Your task to perform on an android device: What's the weather today? Image 0: 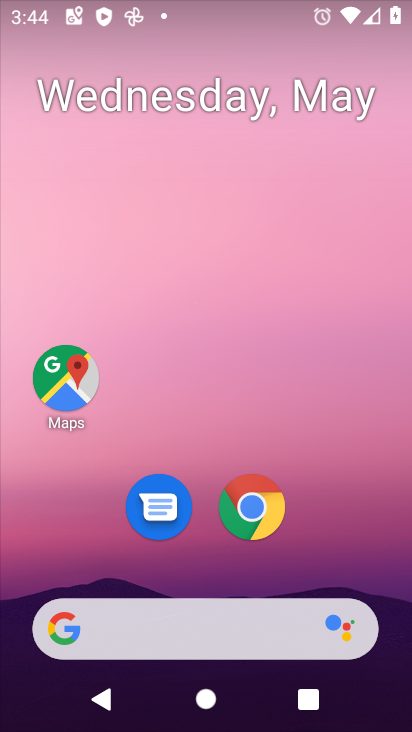
Step 0: click (190, 620)
Your task to perform on an android device: What's the weather today? Image 1: 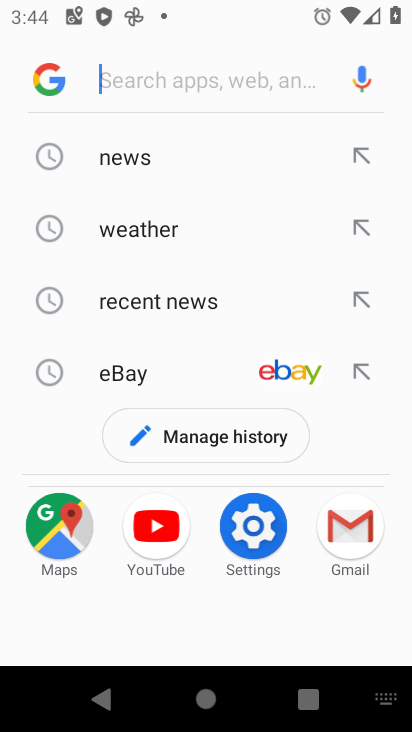
Step 1: click (160, 212)
Your task to perform on an android device: What's the weather today? Image 2: 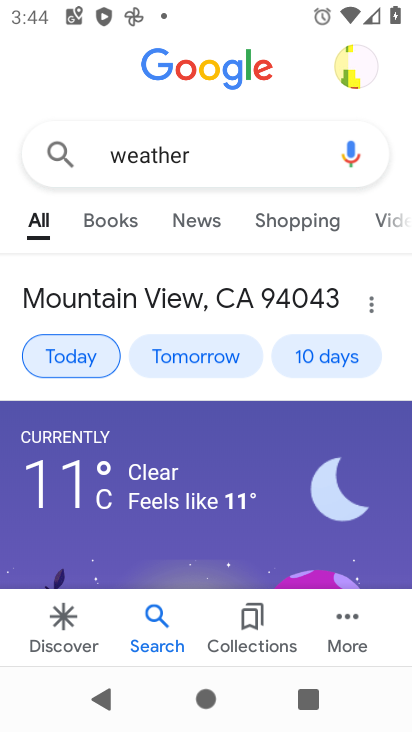
Step 2: task complete